Your task to perform on an android device: turn on bluetooth scan Image 0: 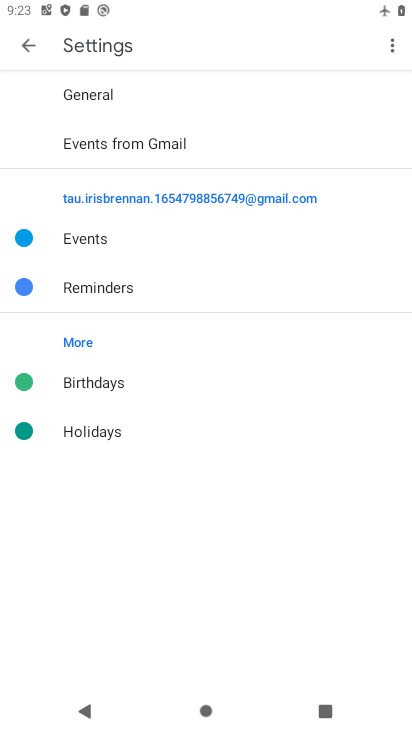
Step 0: press home button
Your task to perform on an android device: turn on bluetooth scan Image 1: 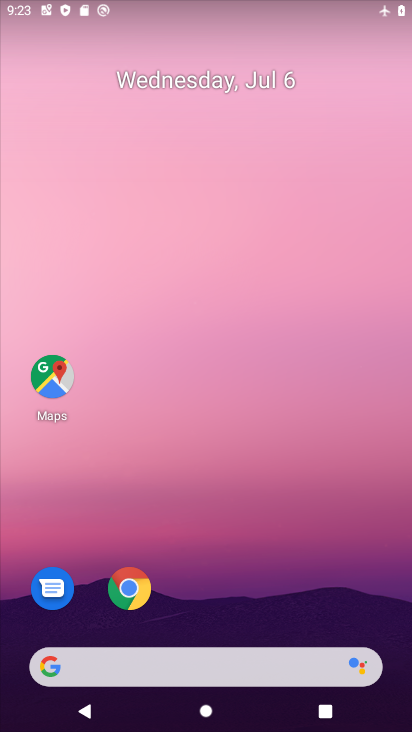
Step 1: drag from (166, 675) to (310, 108)
Your task to perform on an android device: turn on bluetooth scan Image 2: 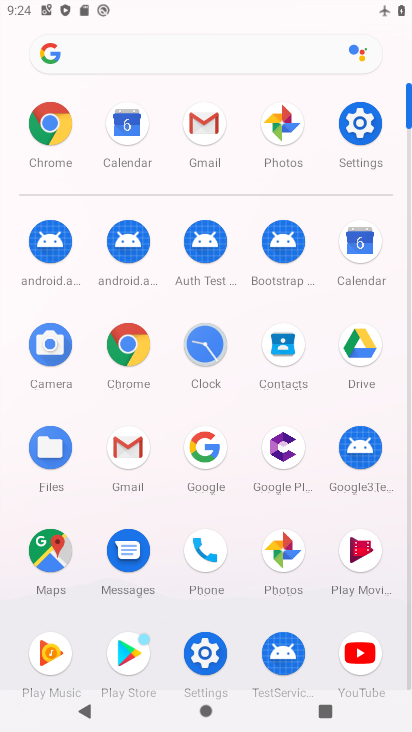
Step 2: click (355, 123)
Your task to perform on an android device: turn on bluetooth scan Image 3: 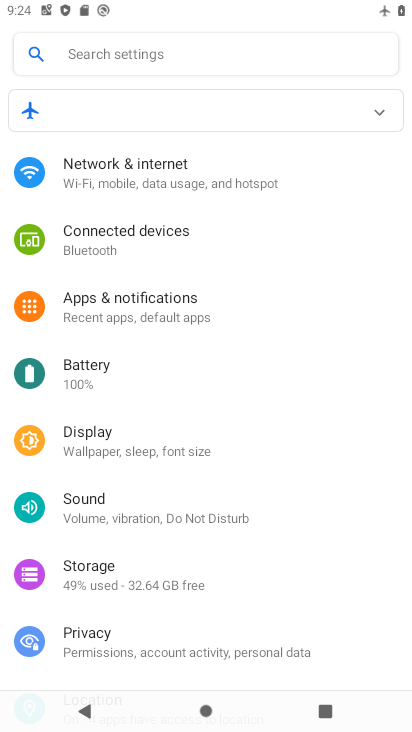
Step 3: drag from (211, 571) to (328, 215)
Your task to perform on an android device: turn on bluetooth scan Image 4: 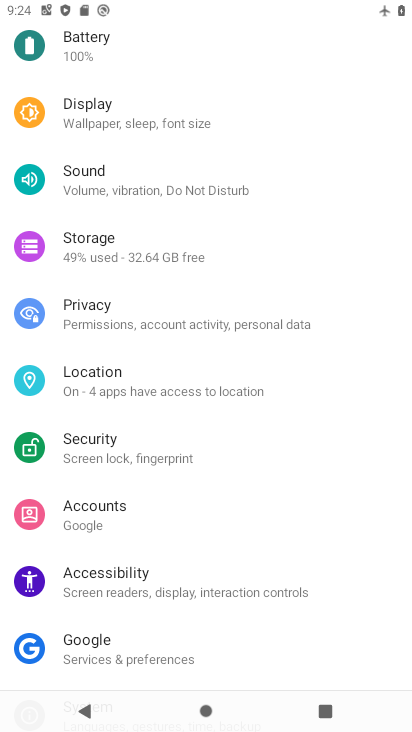
Step 4: click (167, 383)
Your task to perform on an android device: turn on bluetooth scan Image 5: 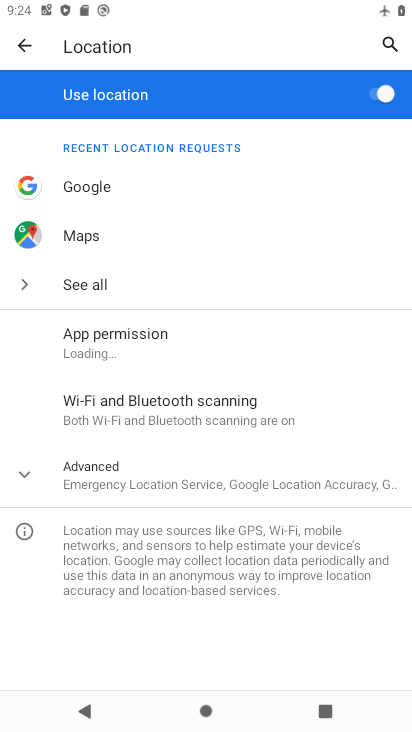
Step 5: click (227, 414)
Your task to perform on an android device: turn on bluetooth scan Image 6: 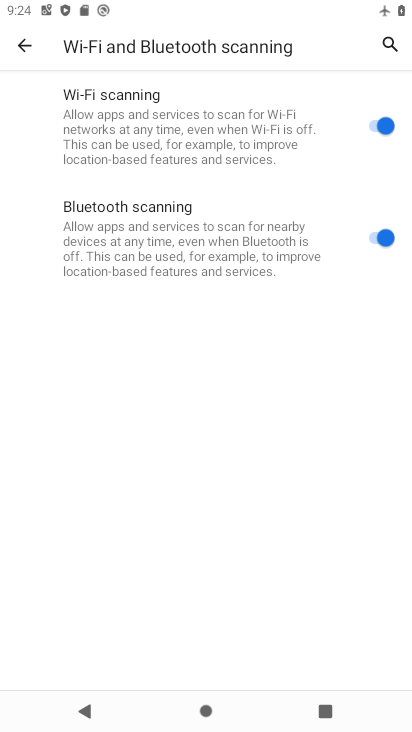
Step 6: task complete